Your task to perform on an android device: Search for sushi restaurants on Maps Image 0: 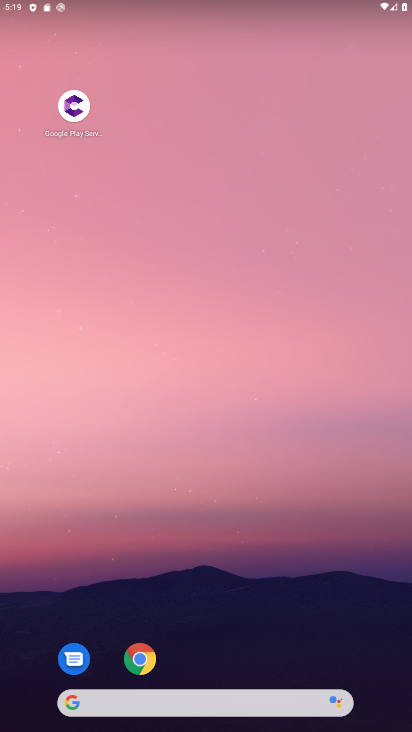
Step 0: drag from (253, 539) to (272, 303)
Your task to perform on an android device: Search for sushi restaurants on Maps Image 1: 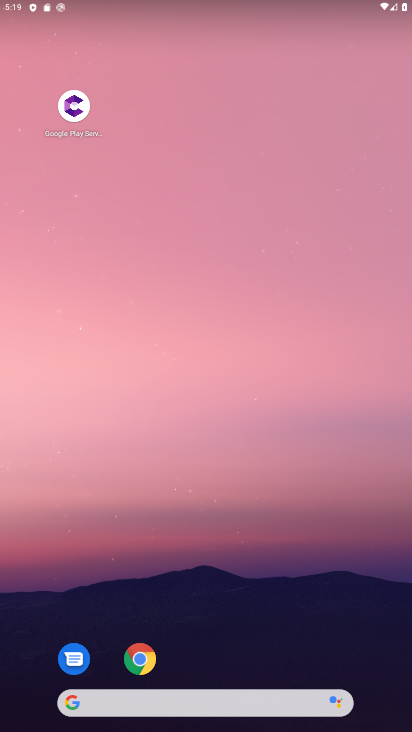
Step 1: drag from (213, 692) to (231, 292)
Your task to perform on an android device: Search for sushi restaurants on Maps Image 2: 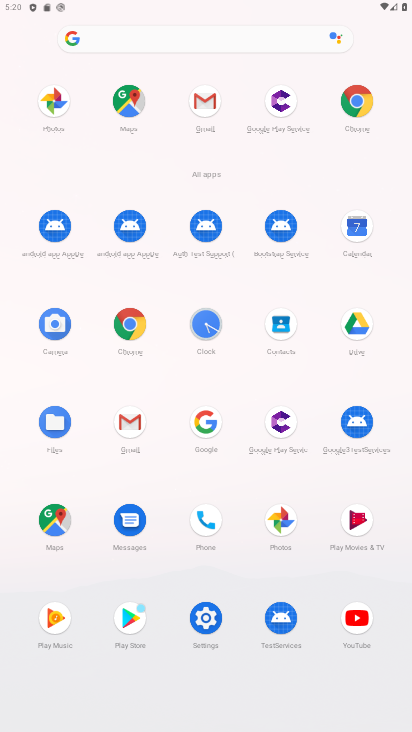
Step 2: click (140, 131)
Your task to perform on an android device: Search for sushi restaurants on Maps Image 3: 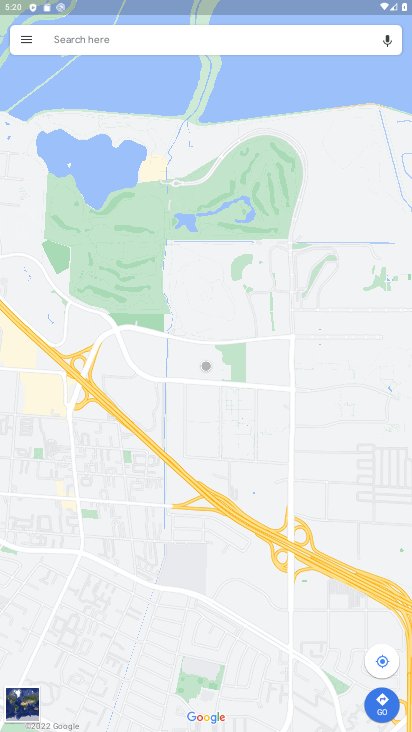
Step 3: click (216, 38)
Your task to perform on an android device: Search for sushi restaurants on Maps Image 4: 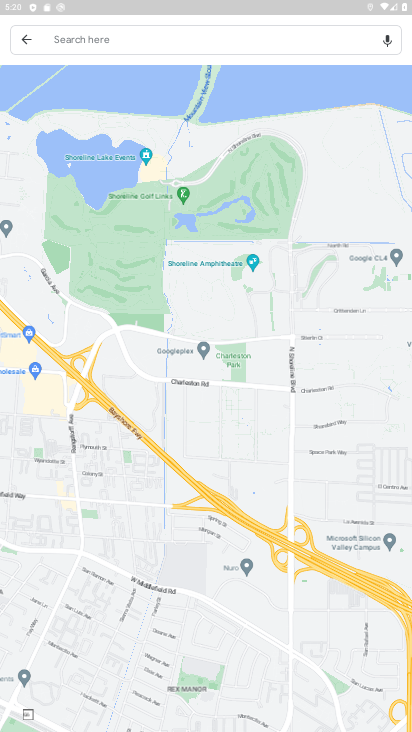
Step 4: click (199, 43)
Your task to perform on an android device: Search for sushi restaurants on Maps Image 5: 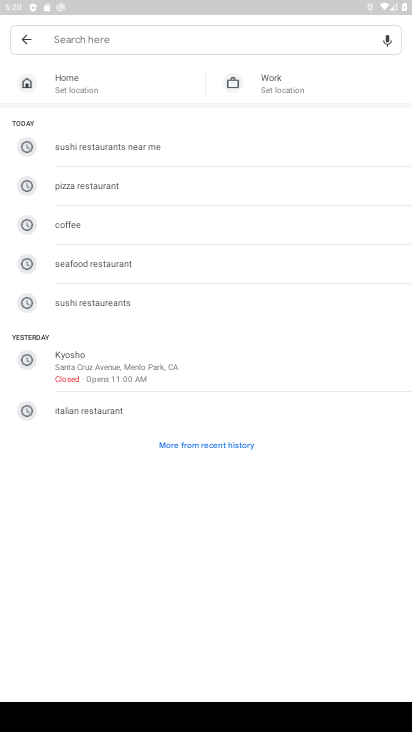
Step 5: type "sushi"
Your task to perform on an android device: Search for sushi restaurants on Maps Image 6: 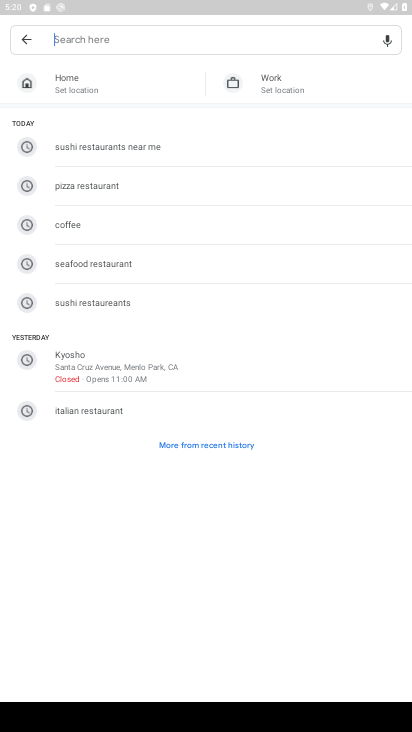
Step 6: click (118, 137)
Your task to perform on an android device: Search for sushi restaurants on Maps Image 7: 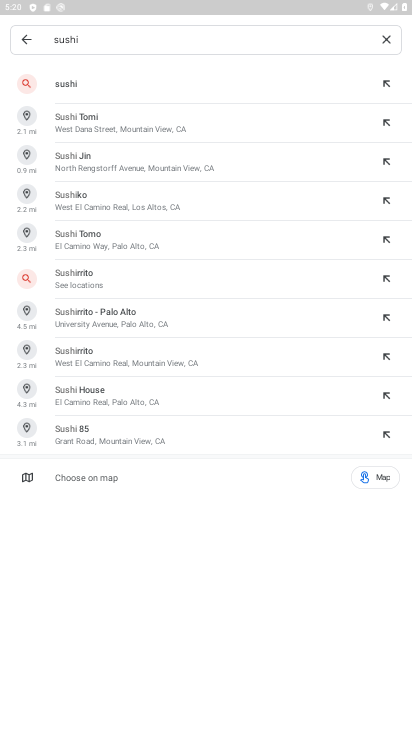
Step 7: task complete